Your task to perform on an android device: allow notifications from all sites in the chrome app Image 0: 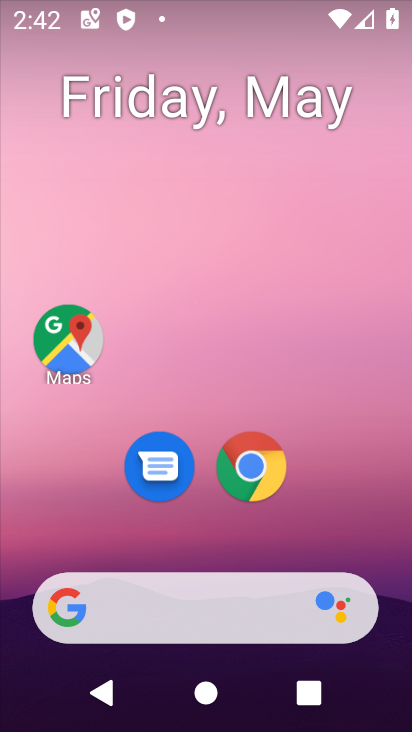
Step 0: click (256, 449)
Your task to perform on an android device: allow notifications from all sites in the chrome app Image 1: 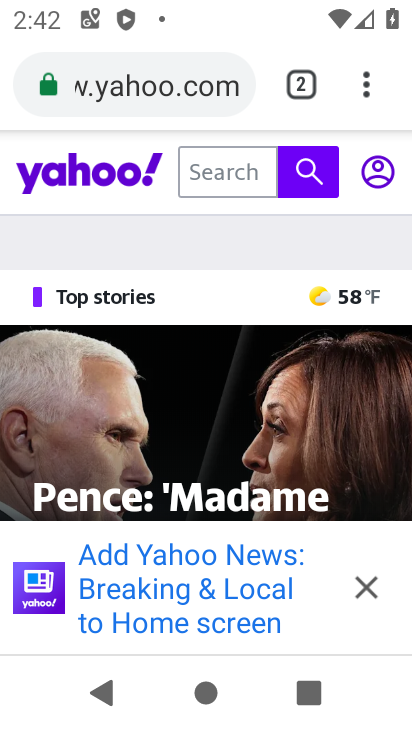
Step 1: drag from (370, 91) to (100, 516)
Your task to perform on an android device: allow notifications from all sites in the chrome app Image 2: 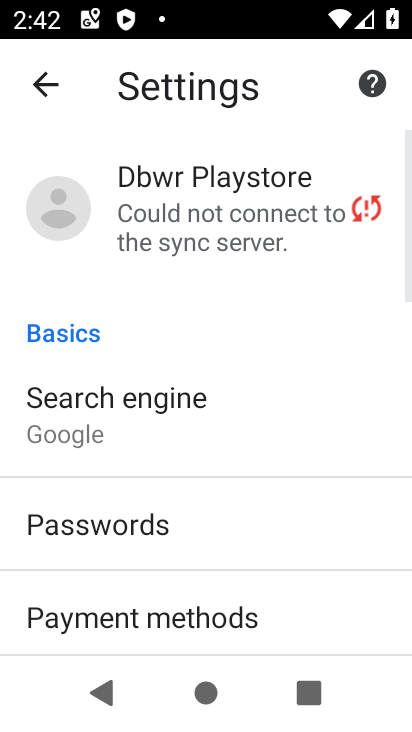
Step 2: drag from (125, 603) to (277, 119)
Your task to perform on an android device: allow notifications from all sites in the chrome app Image 3: 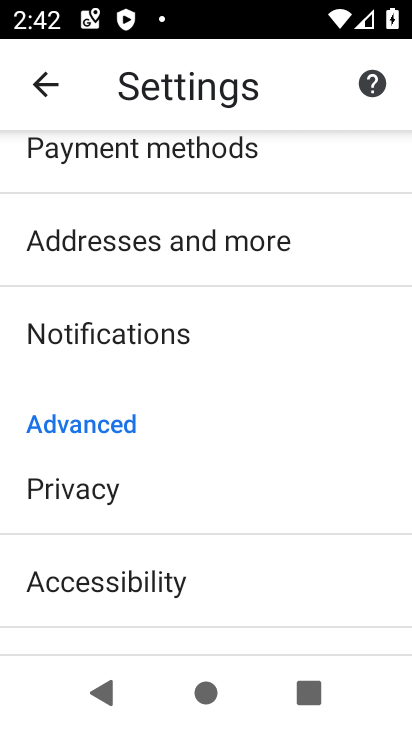
Step 3: click (99, 330)
Your task to perform on an android device: allow notifications from all sites in the chrome app Image 4: 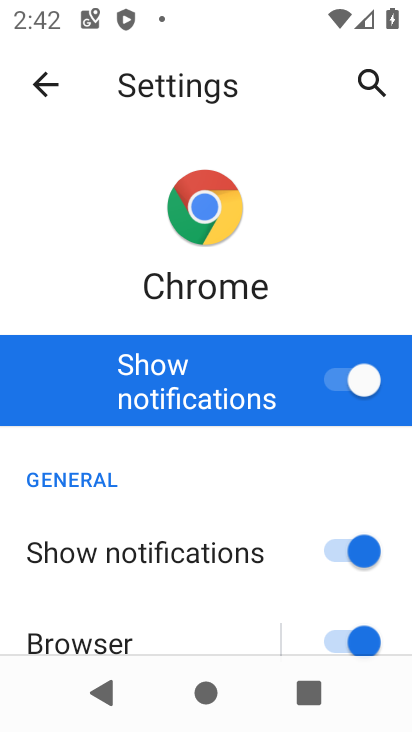
Step 4: task complete